Your task to perform on an android device: Open calendar and show me the second week of next month Image 0: 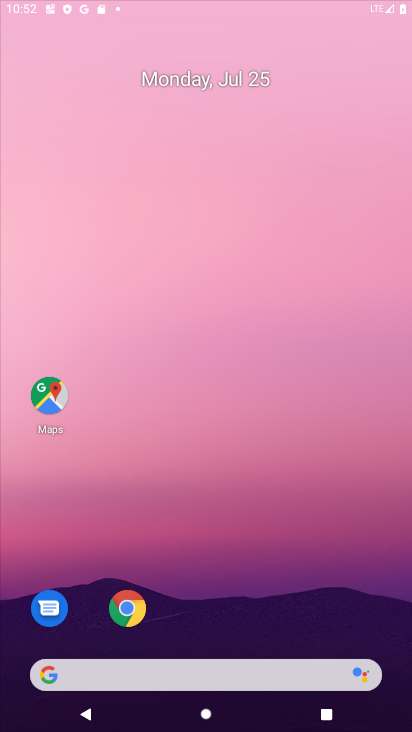
Step 0: drag from (188, 507) to (384, 354)
Your task to perform on an android device: Open calendar and show me the second week of next month Image 1: 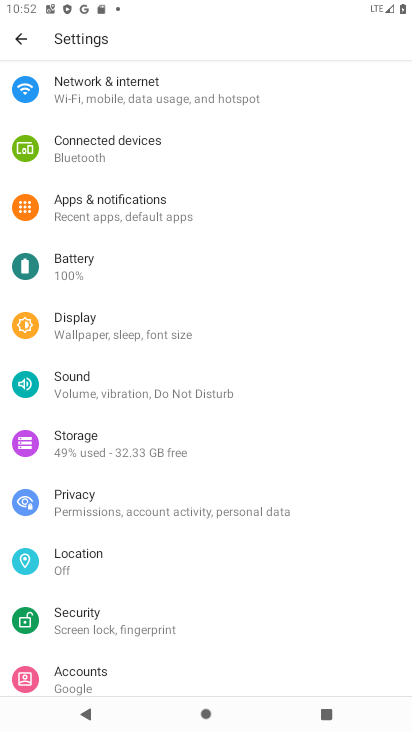
Step 1: press home button
Your task to perform on an android device: Open calendar and show me the second week of next month Image 2: 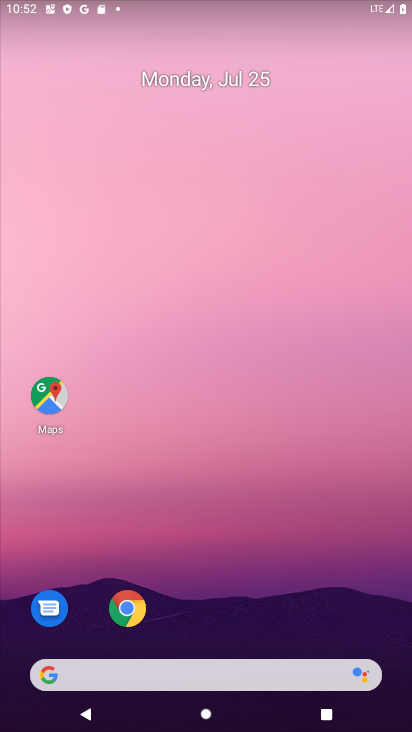
Step 2: drag from (186, 657) to (192, 93)
Your task to perform on an android device: Open calendar and show me the second week of next month Image 3: 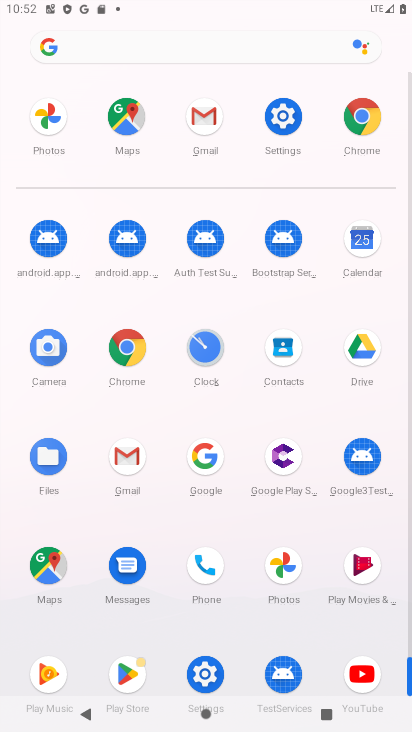
Step 3: click (364, 255)
Your task to perform on an android device: Open calendar and show me the second week of next month Image 4: 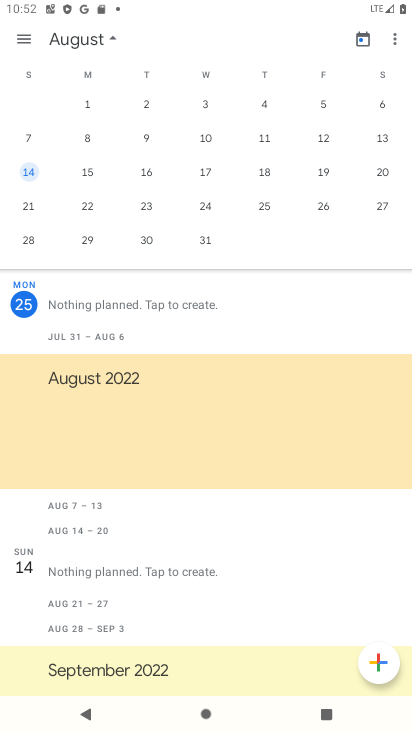
Step 4: drag from (81, 171) to (409, 152)
Your task to perform on an android device: Open calendar and show me the second week of next month Image 5: 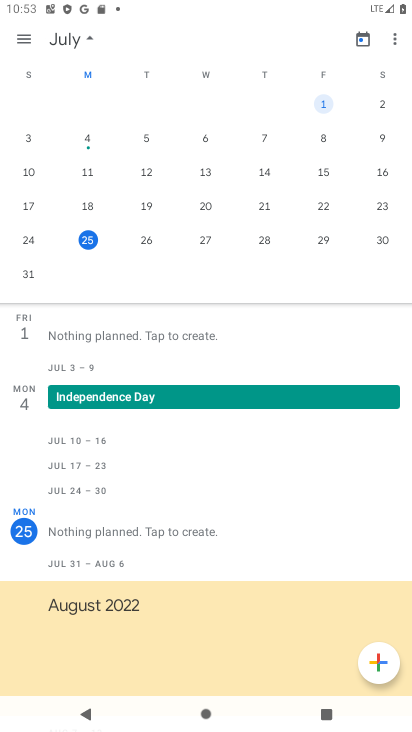
Step 5: click (83, 247)
Your task to perform on an android device: Open calendar and show me the second week of next month Image 6: 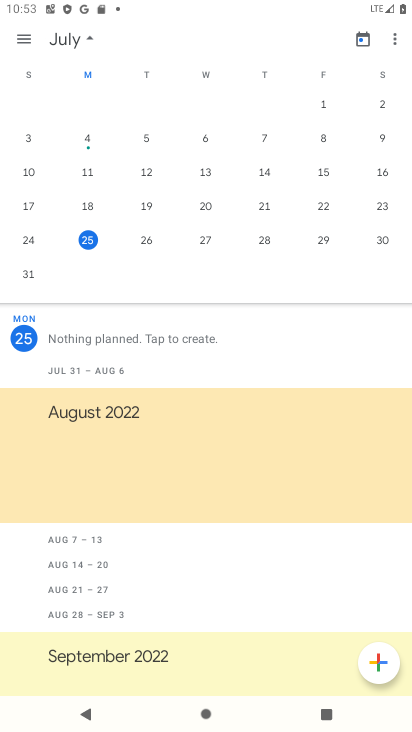
Step 6: click (89, 236)
Your task to perform on an android device: Open calendar and show me the second week of next month Image 7: 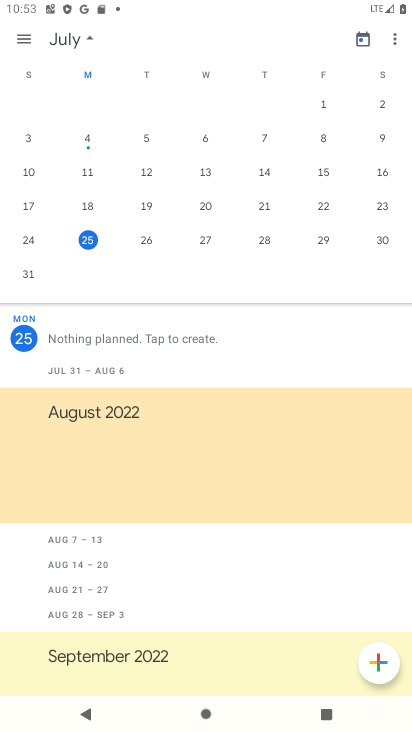
Step 7: task complete